Your task to perform on an android device: create a new album in the google photos Image 0: 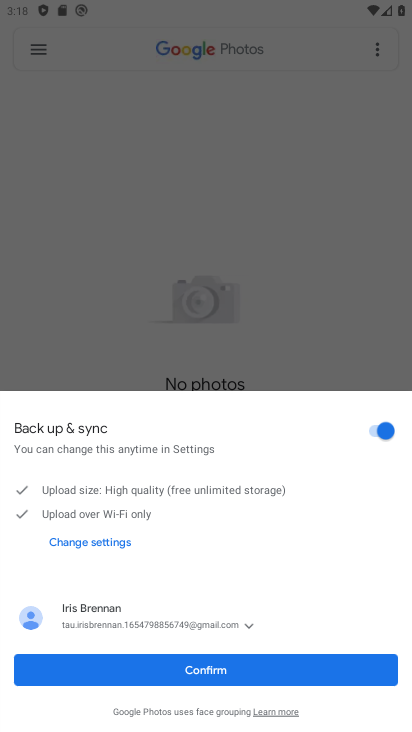
Step 0: click (197, 676)
Your task to perform on an android device: create a new album in the google photos Image 1: 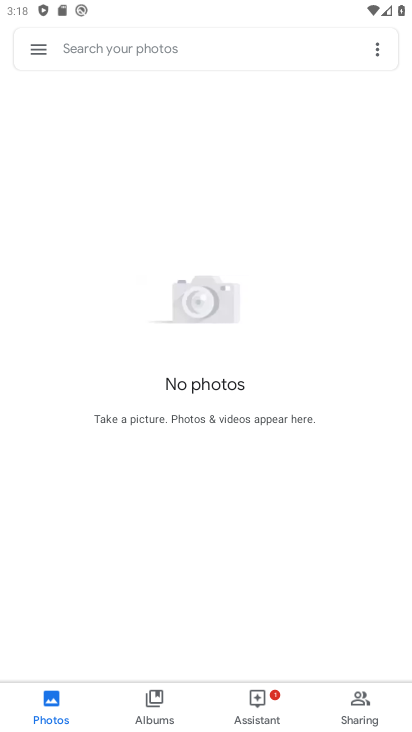
Step 1: click (377, 49)
Your task to perform on an android device: create a new album in the google photos Image 2: 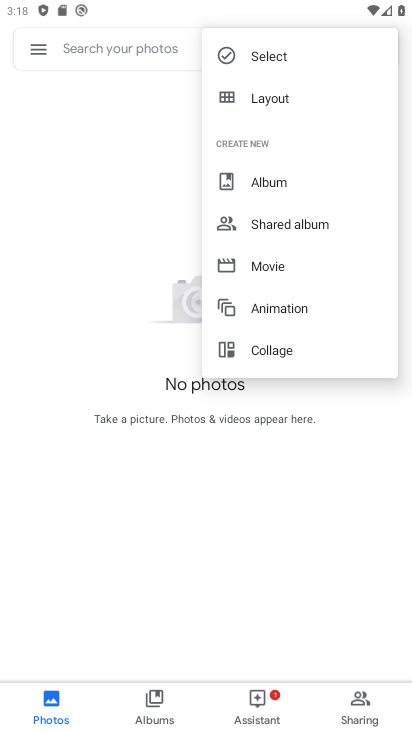
Step 2: click (270, 190)
Your task to perform on an android device: create a new album in the google photos Image 3: 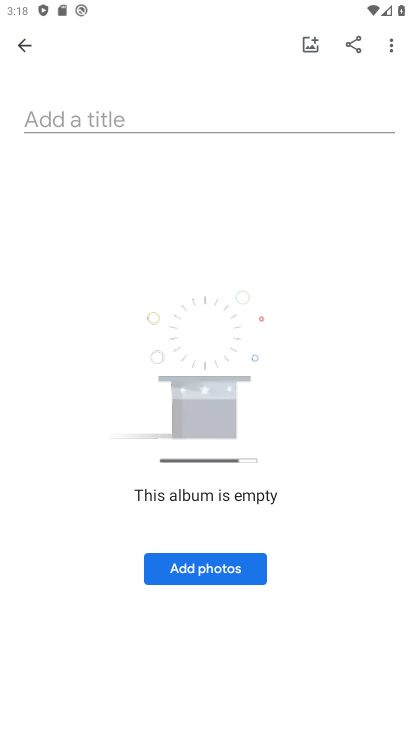
Step 3: click (140, 118)
Your task to perform on an android device: create a new album in the google photos Image 4: 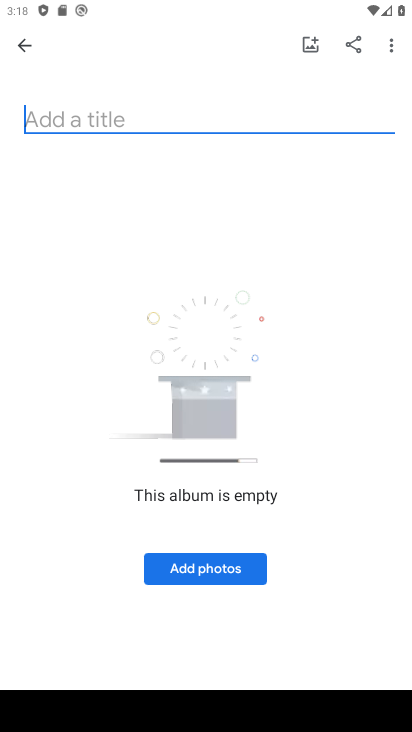
Step 4: type "gggg"
Your task to perform on an android device: create a new album in the google photos Image 5: 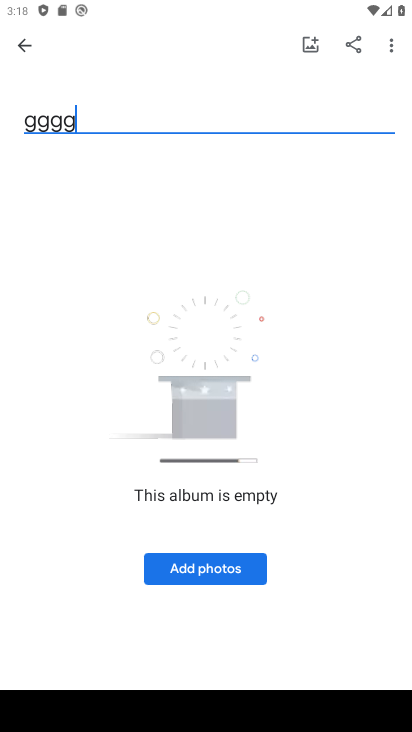
Step 5: type ""
Your task to perform on an android device: create a new album in the google photos Image 6: 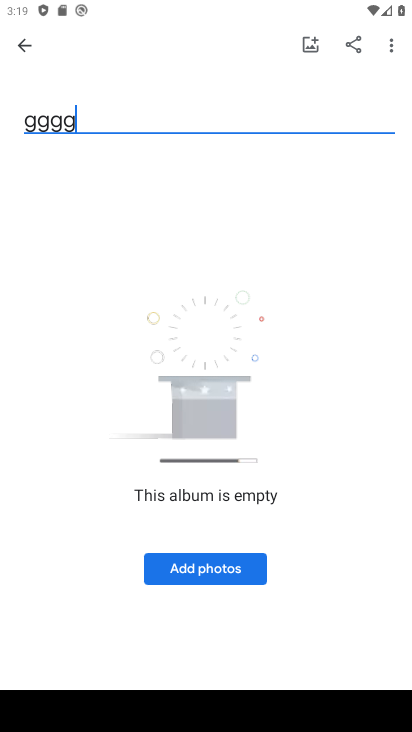
Step 6: click (168, 569)
Your task to perform on an android device: create a new album in the google photos Image 7: 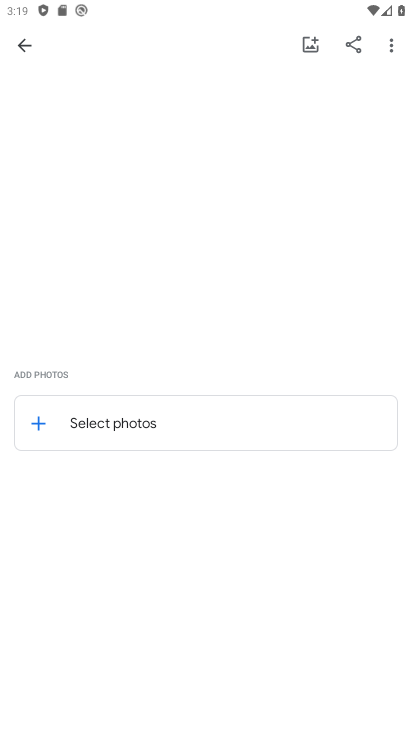
Step 7: click (30, 416)
Your task to perform on an android device: create a new album in the google photos Image 8: 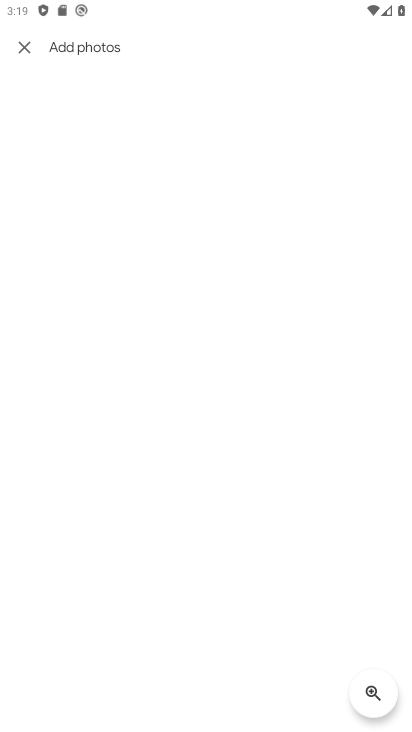
Step 8: click (78, 266)
Your task to perform on an android device: create a new album in the google photos Image 9: 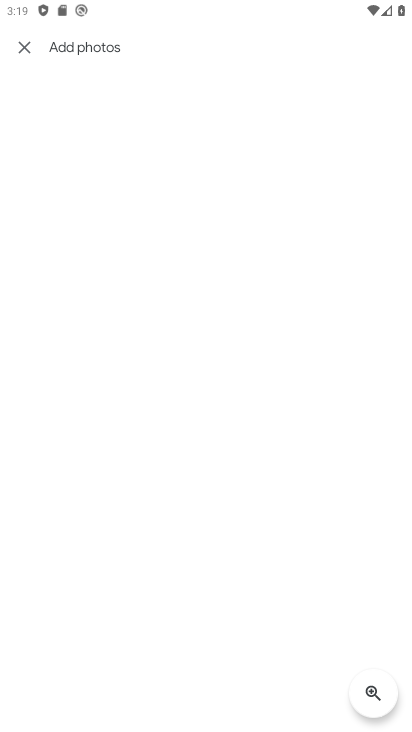
Step 9: click (88, 50)
Your task to perform on an android device: create a new album in the google photos Image 10: 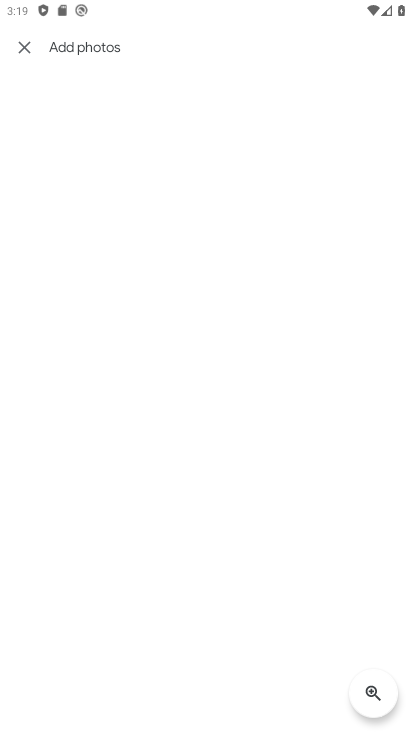
Step 10: click (107, 46)
Your task to perform on an android device: create a new album in the google photos Image 11: 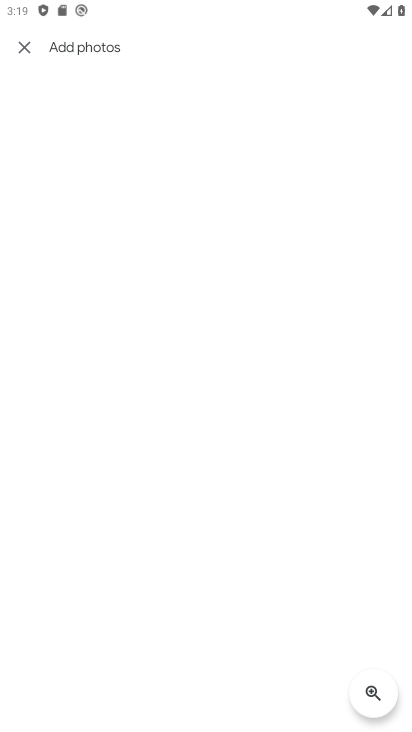
Step 11: click (22, 38)
Your task to perform on an android device: create a new album in the google photos Image 12: 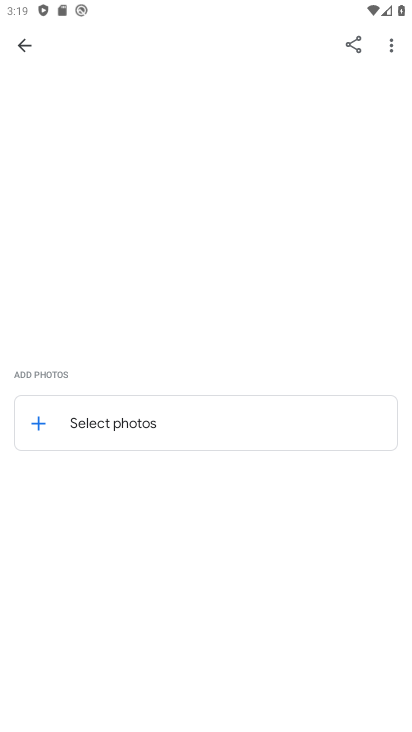
Step 12: click (83, 422)
Your task to perform on an android device: create a new album in the google photos Image 13: 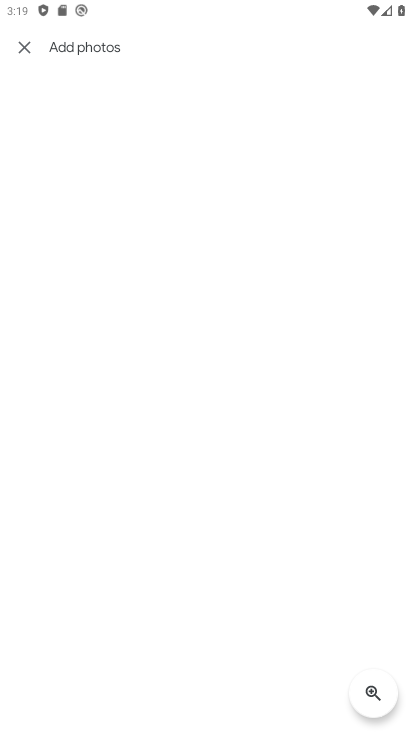
Step 13: task complete